Your task to perform on an android device: Go to wifi settings Image 0: 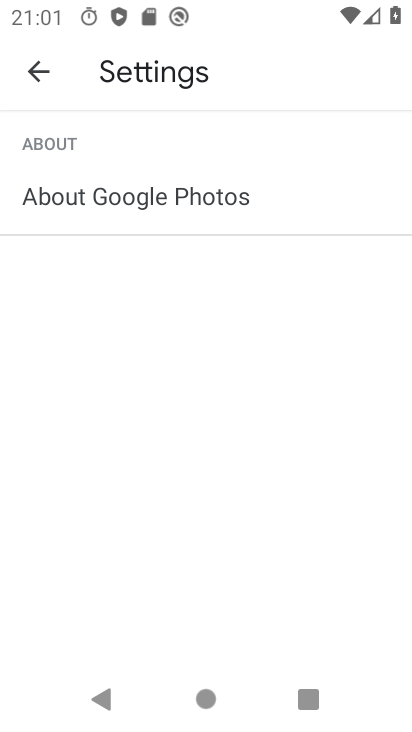
Step 0: press home button
Your task to perform on an android device: Go to wifi settings Image 1: 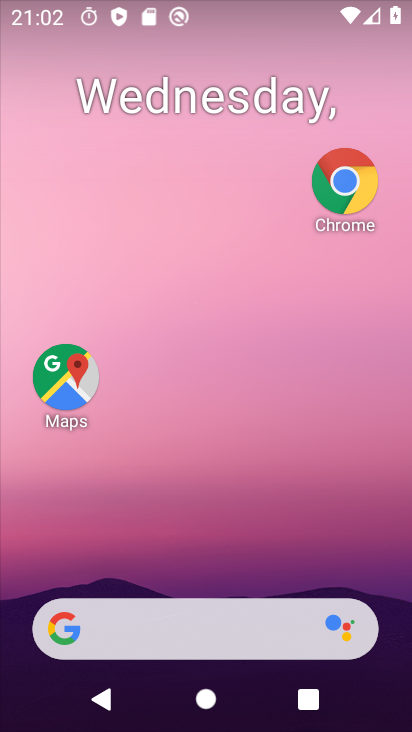
Step 1: drag from (258, 673) to (252, 327)
Your task to perform on an android device: Go to wifi settings Image 2: 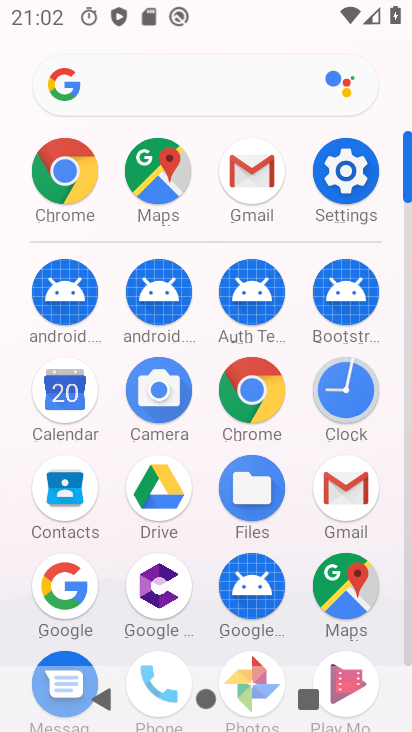
Step 2: click (351, 181)
Your task to perform on an android device: Go to wifi settings Image 3: 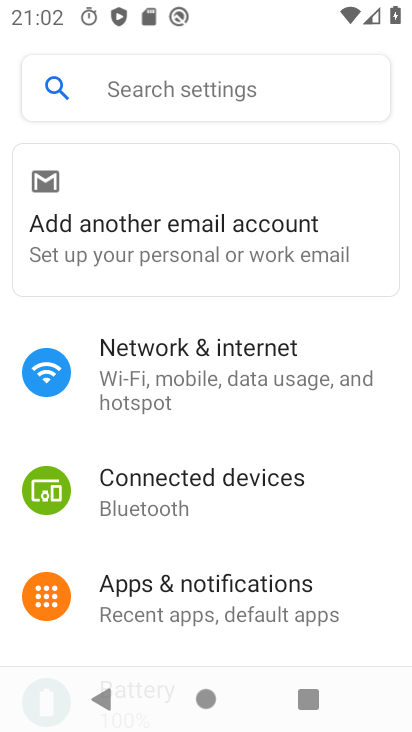
Step 3: click (169, 357)
Your task to perform on an android device: Go to wifi settings Image 4: 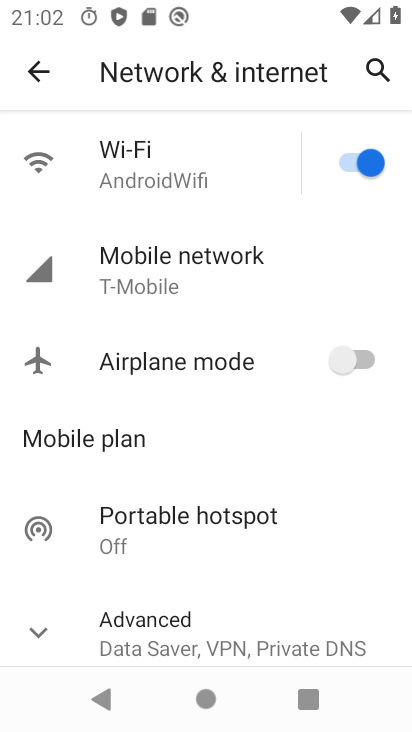
Step 4: click (159, 167)
Your task to perform on an android device: Go to wifi settings Image 5: 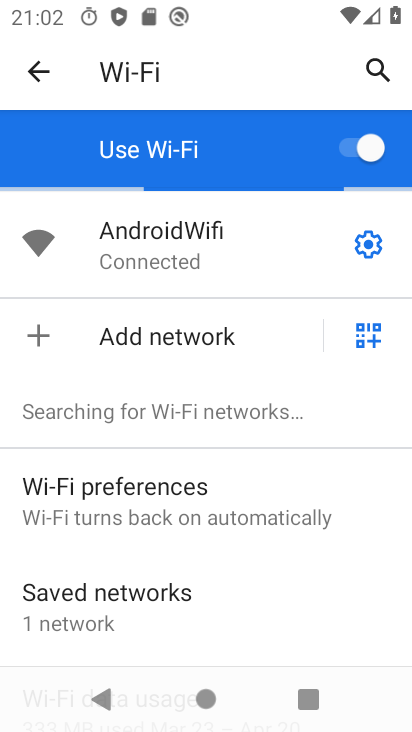
Step 5: task complete